Your task to perform on an android device: Go to calendar. Show me events next week Image 0: 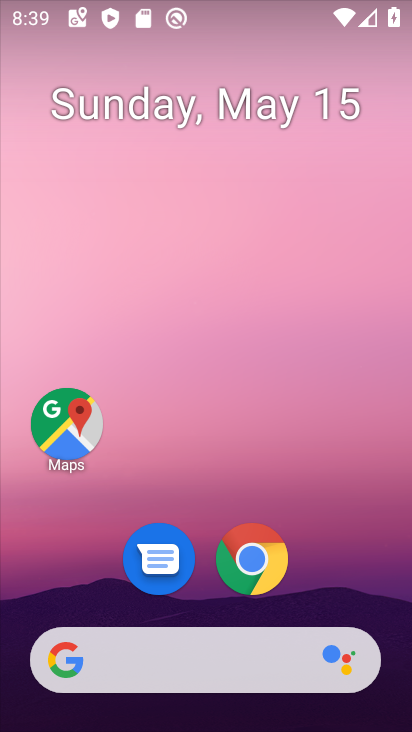
Step 0: drag from (385, 543) to (352, 31)
Your task to perform on an android device: Go to calendar. Show me events next week Image 1: 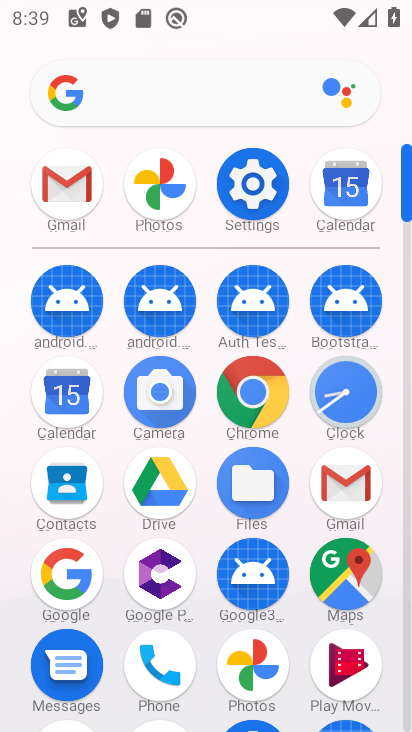
Step 1: click (62, 422)
Your task to perform on an android device: Go to calendar. Show me events next week Image 2: 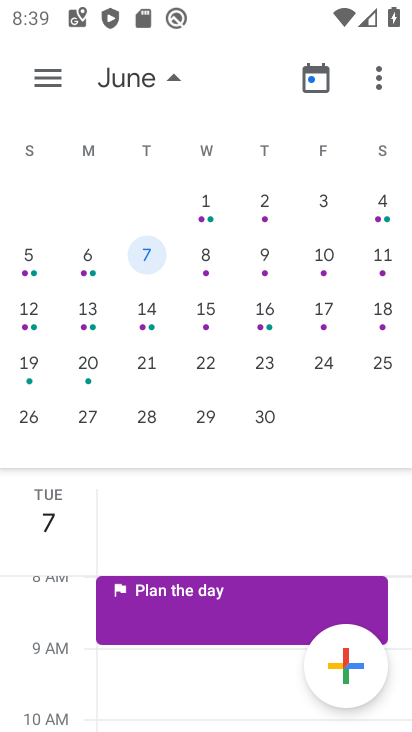
Step 2: task complete